Your task to perform on an android device: Search for seafood restaurants on Google Maps Image 0: 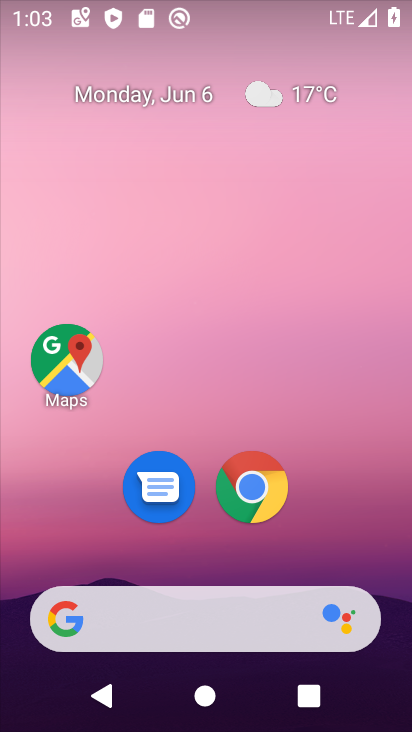
Step 0: click (65, 358)
Your task to perform on an android device: Search for seafood restaurants on Google Maps Image 1: 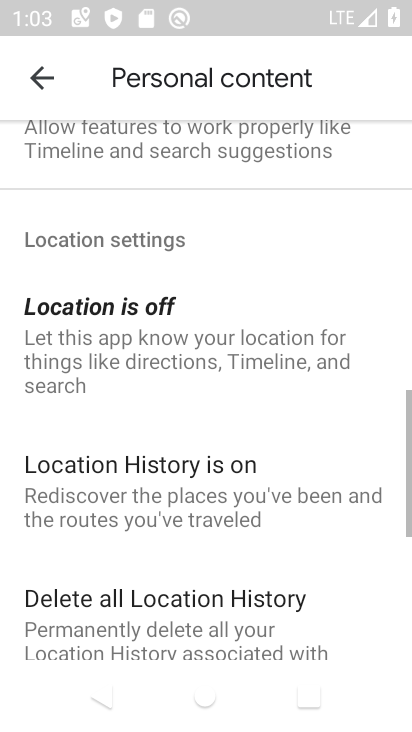
Step 1: click (45, 73)
Your task to perform on an android device: Search for seafood restaurants on Google Maps Image 2: 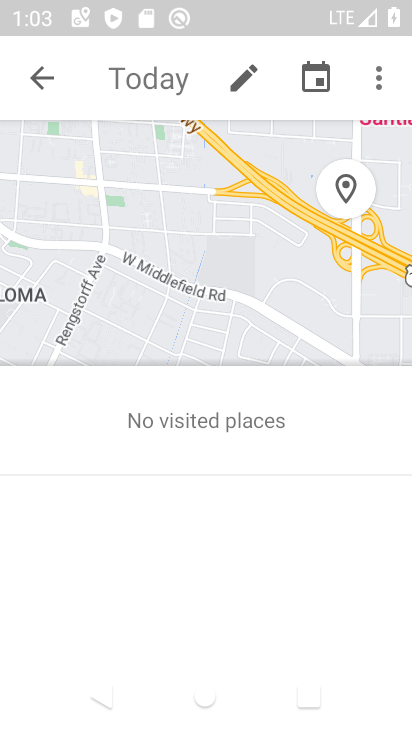
Step 2: click (46, 73)
Your task to perform on an android device: Search for seafood restaurants on Google Maps Image 3: 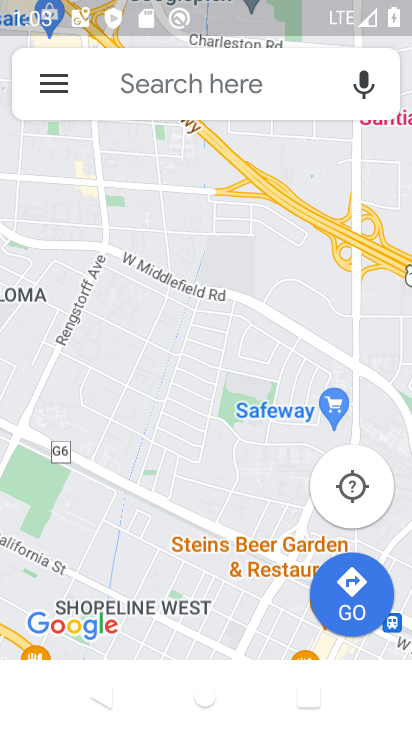
Step 3: click (181, 72)
Your task to perform on an android device: Search for seafood restaurants on Google Maps Image 4: 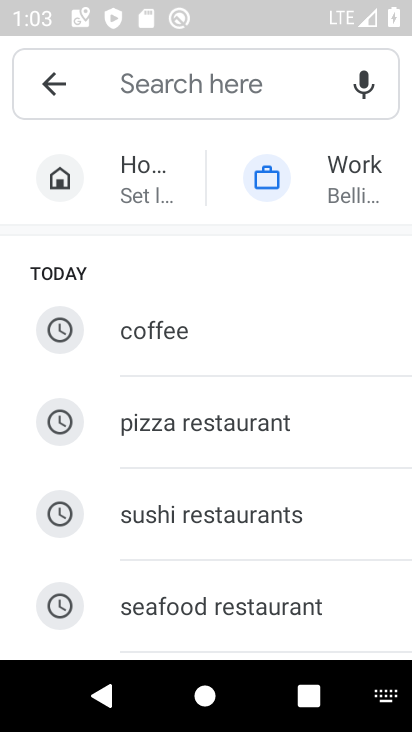
Step 4: click (187, 602)
Your task to perform on an android device: Search for seafood restaurants on Google Maps Image 5: 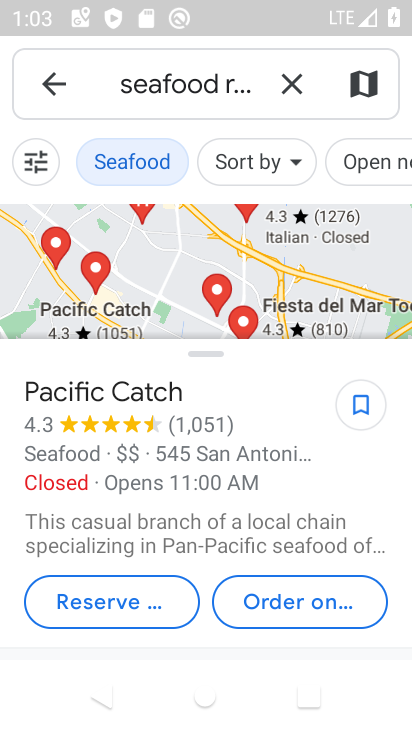
Step 5: task complete